Your task to perform on an android device: delete the emails in spam in the gmail app Image 0: 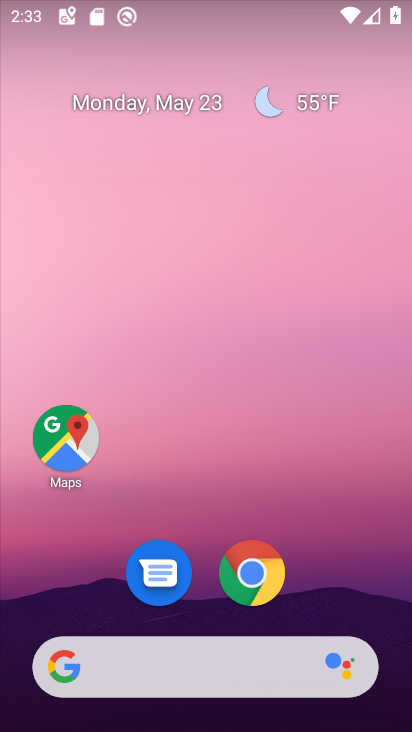
Step 0: drag from (344, 580) to (255, 69)
Your task to perform on an android device: delete the emails in spam in the gmail app Image 1: 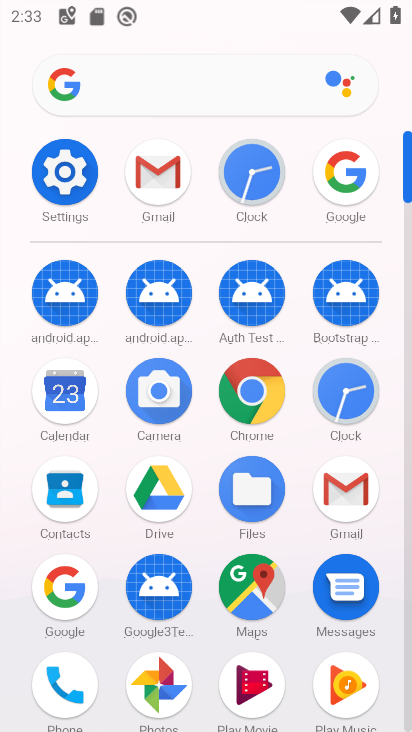
Step 1: click (158, 160)
Your task to perform on an android device: delete the emails in spam in the gmail app Image 2: 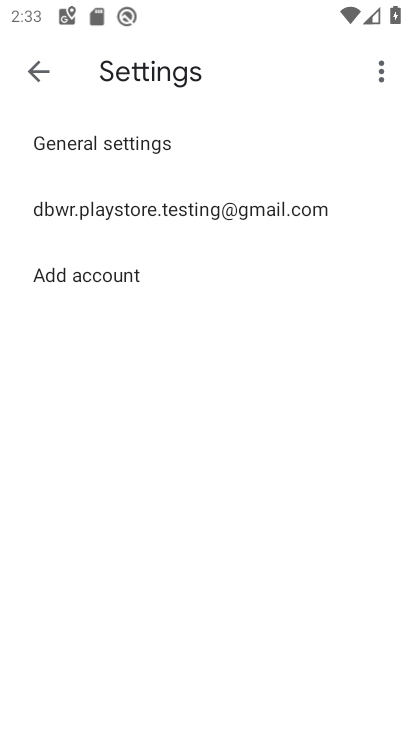
Step 2: click (37, 71)
Your task to perform on an android device: delete the emails in spam in the gmail app Image 3: 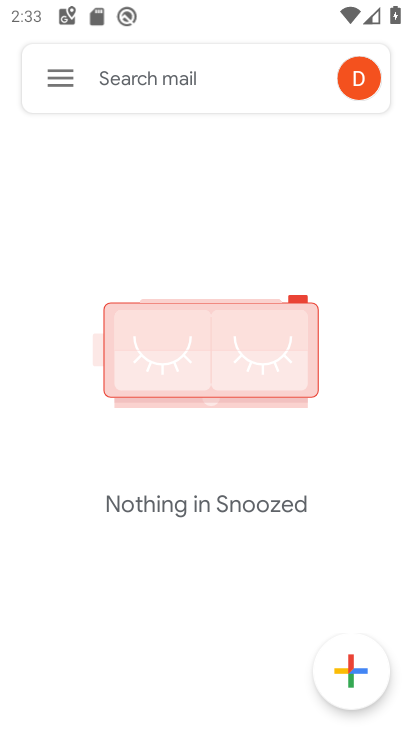
Step 3: click (62, 72)
Your task to perform on an android device: delete the emails in spam in the gmail app Image 4: 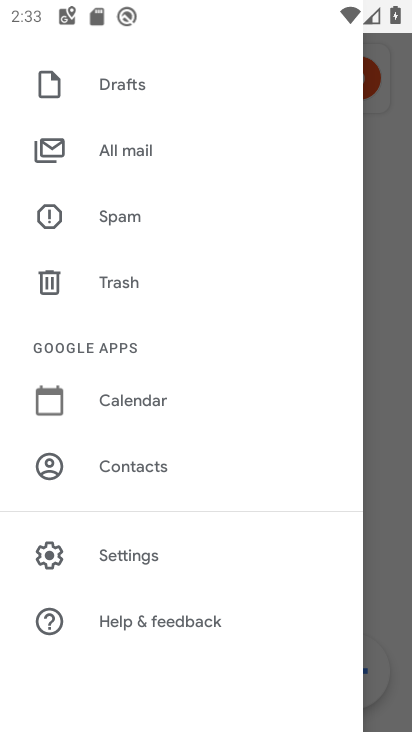
Step 4: click (131, 217)
Your task to perform on an android device: delete the emails in spam in the gmail app Image 5: 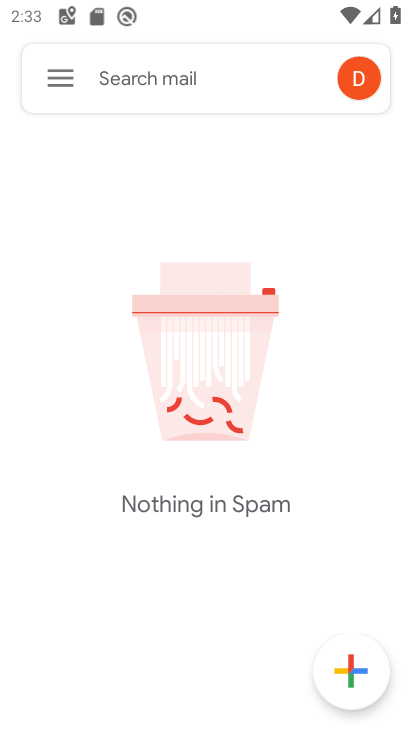
Step 5: task complete